Your task to perform on an android device: When is my next appointment? Image 0: 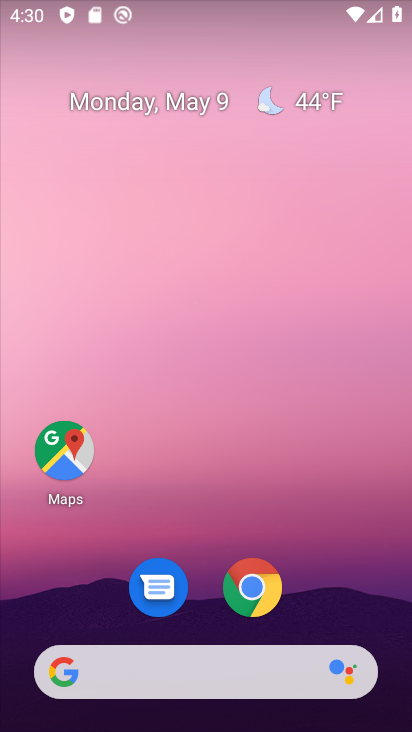
Step 0: drag from (209, 613) to (258, 150)
Your task to perform on an android device: When is my next appointment? Image 1: 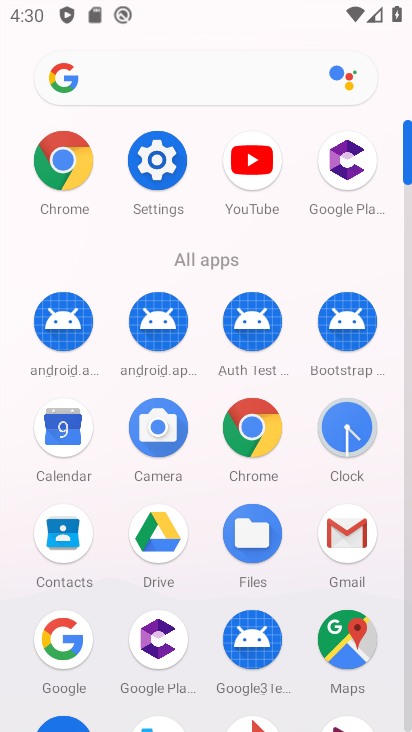
Step 1: click (62, 437)
Your task to perform on an android device: When is my next appointment? Image 2: 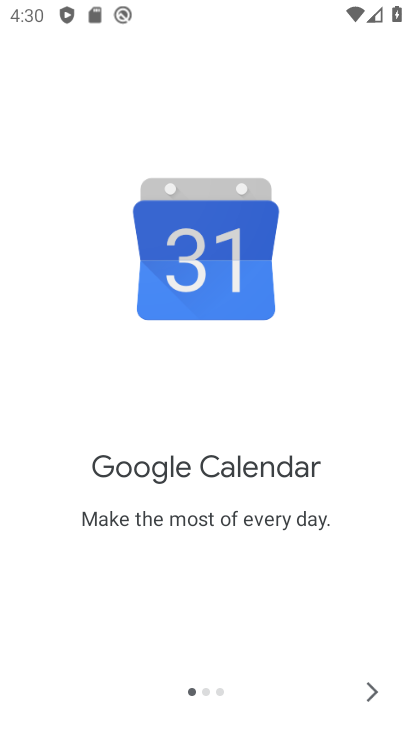
Step 2: click (370, 685)
Your task to perform on an android device: When is my next appointment? Image 3: 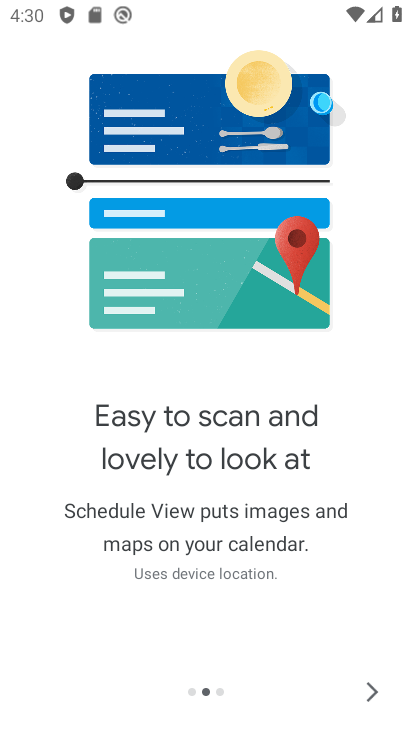
Step 3: click (369, 685)
Your task to perform on an android device: When is my next appointment? Image 4: 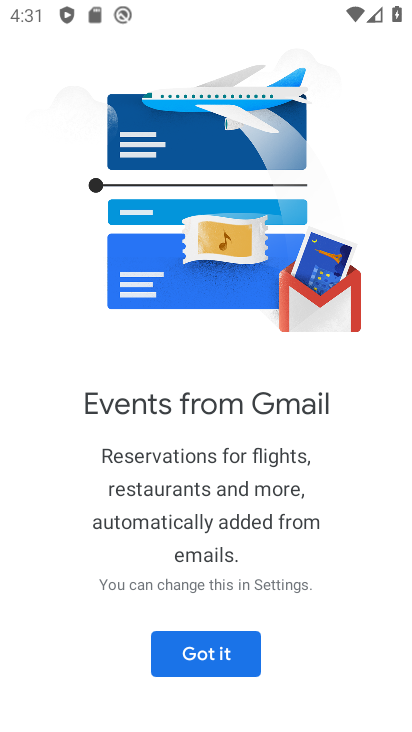
Step 4: click (223, 662)
Your task to perform on an android device: When is my next appointment? Image 5: 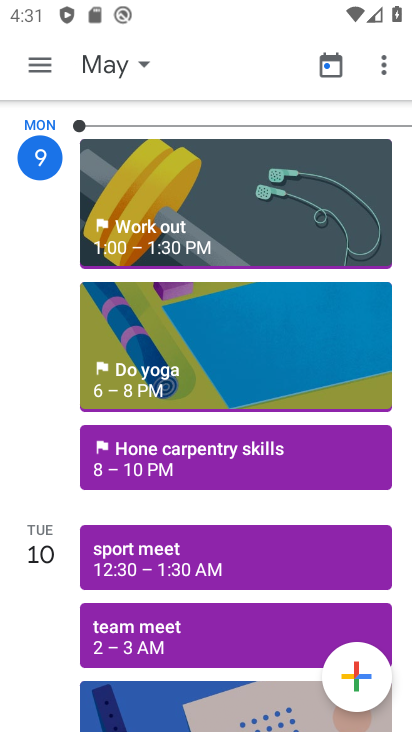
Step 5: click (133, 63)
Your task to perform on an android device: When is my next appointment? Image 6: 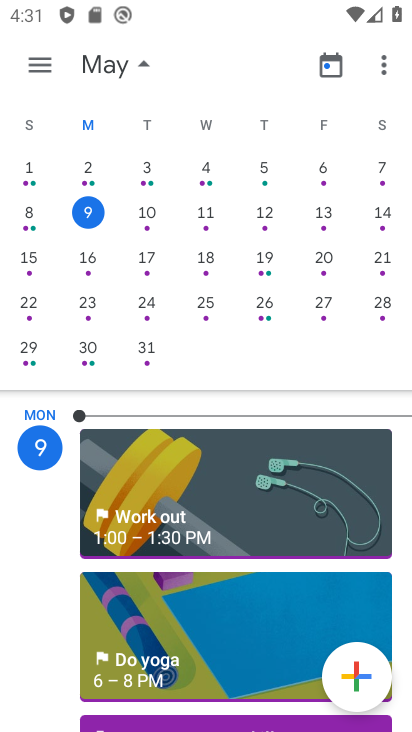
Step 6: click (146, 213)
Your task to perform on an android device: When is my next appointment? Image 7: 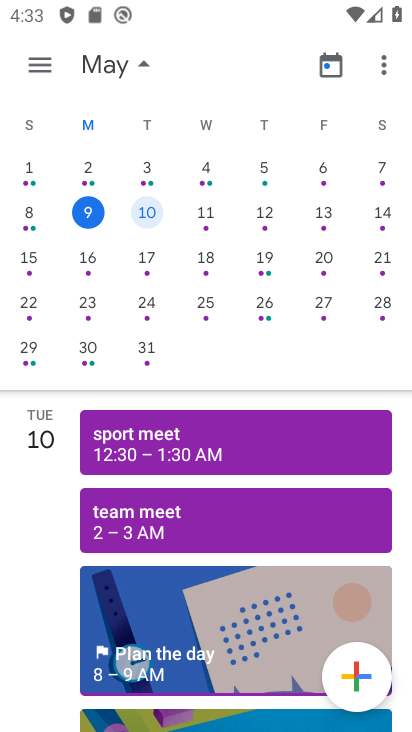
Step 7: task complete